Your task to perform on an android device: What's the weather going to be this weekend? Image 0: 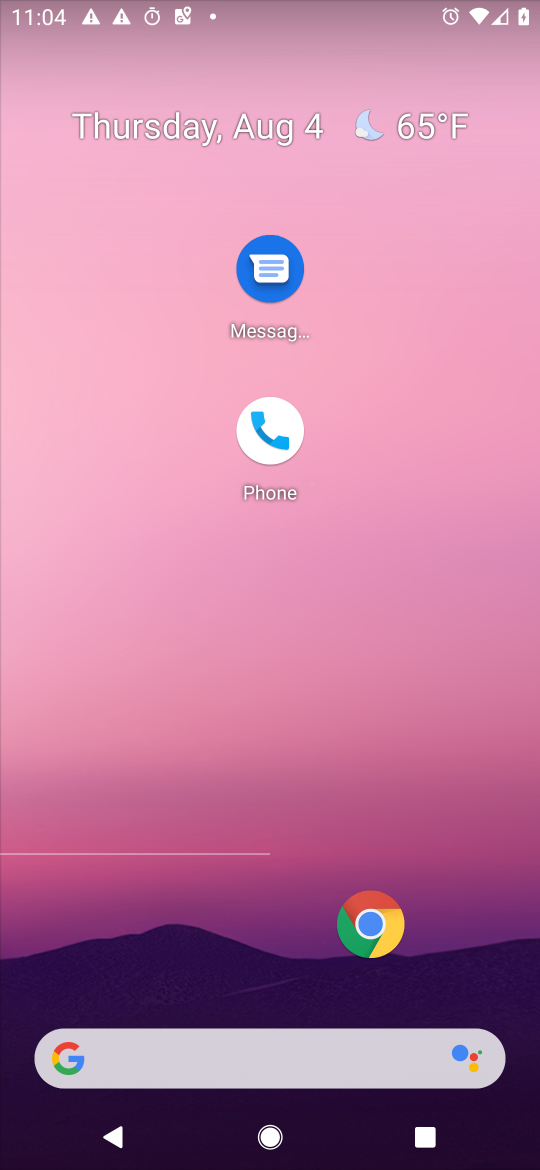
Step 0: drag from (236, 988) to (280, 313)
Your task to perform on an android device: What's the weather going to be this weekend? Image 1: 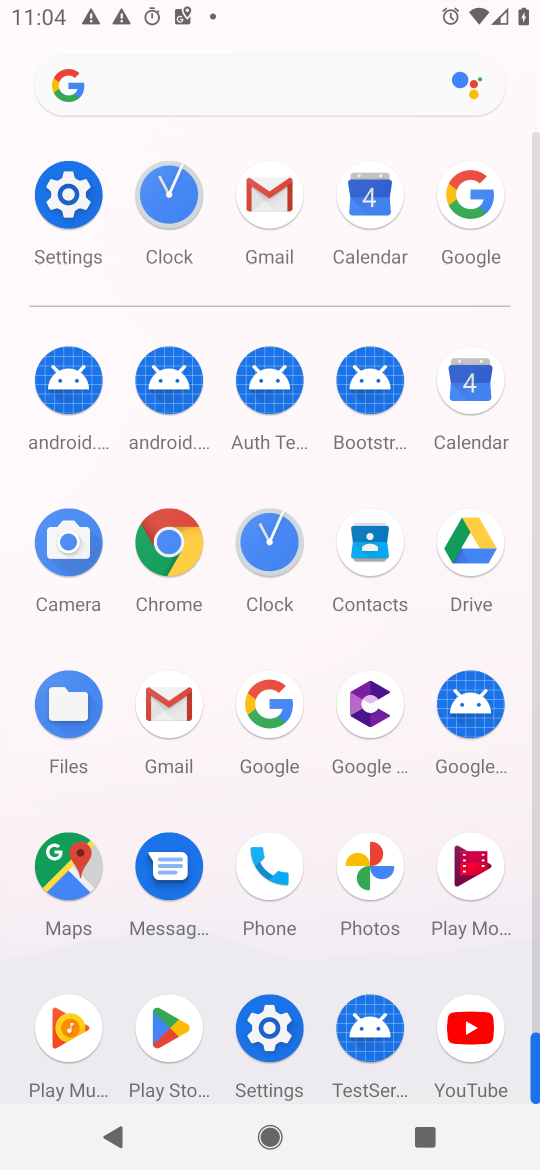
Step 1: click (231, 79)
Your task to perform on an android device: What's the weather going to be this weekend? Image 2: 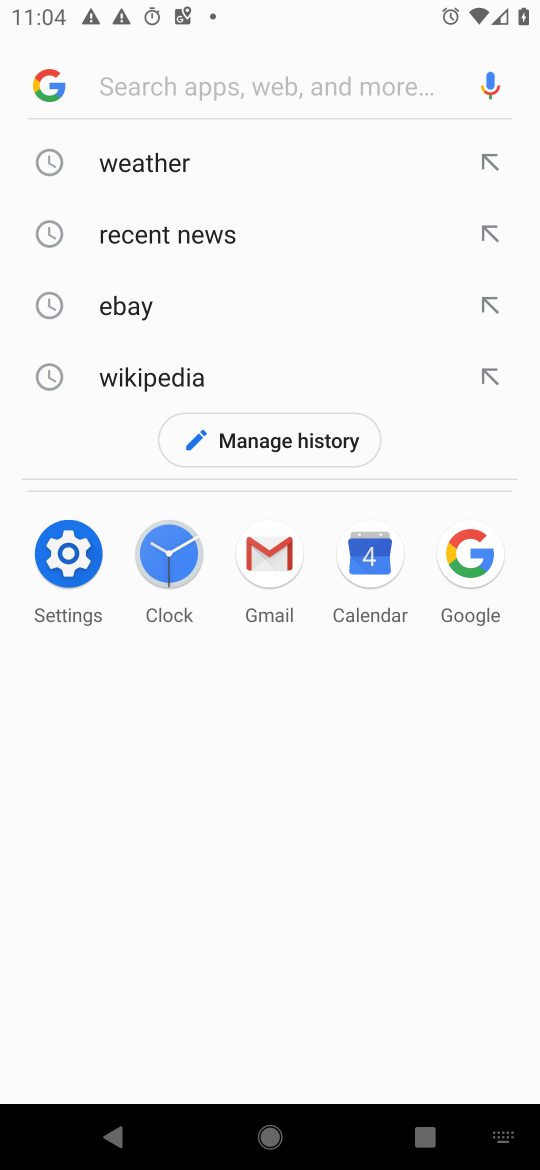
Step 2: click (156, 162)
Your task to perform on an android device: What's the weather going to be this weekend? Image 3: 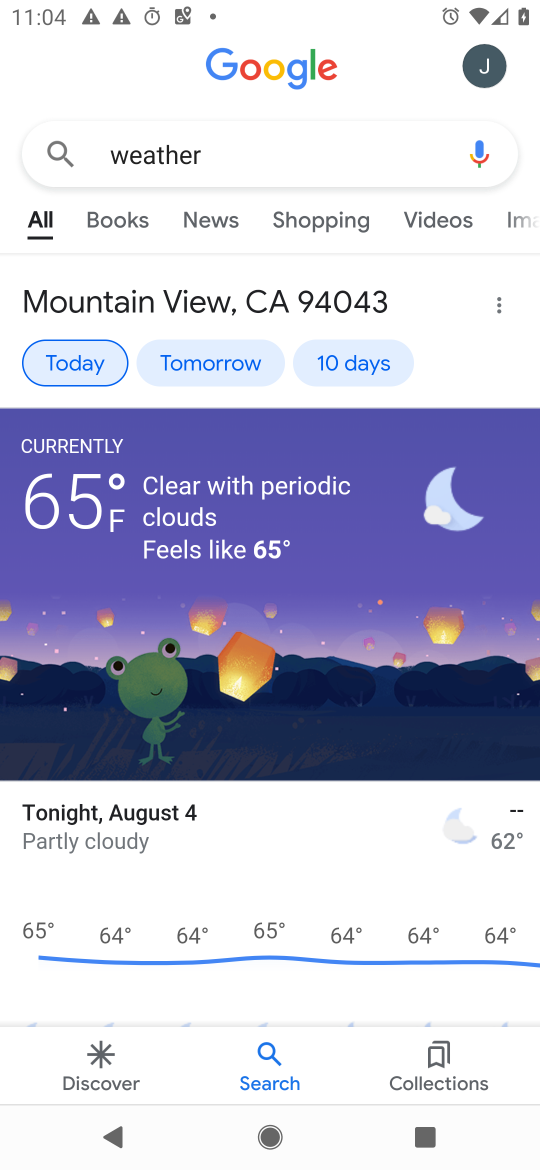
Step 3: task complete